Your task to perform on an android device: change the clock display to analog Image 0: 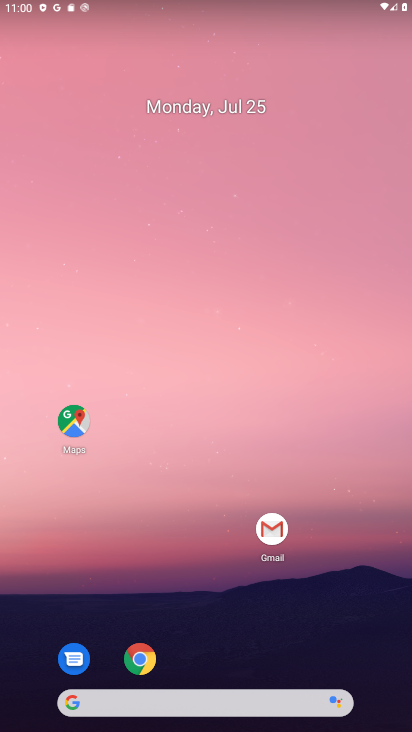
Step 0: drag from (243, 714) to (276, 350)
Your task to perform on an android device: change the clock display to analog Image 1: 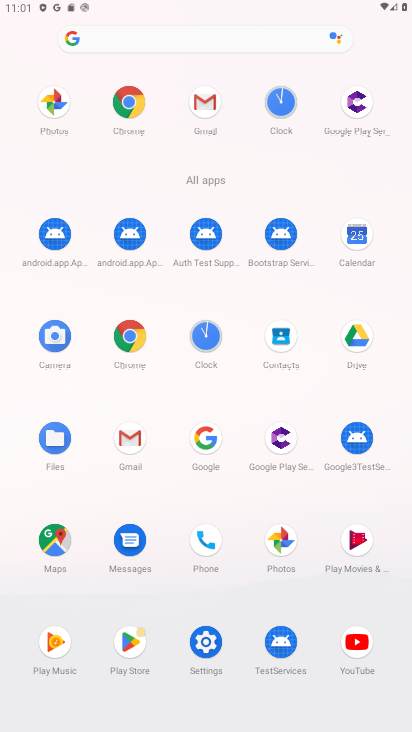
Step 1: click (276, 112)
Your task to perform on an android device: change the clock display to analog Image 2: 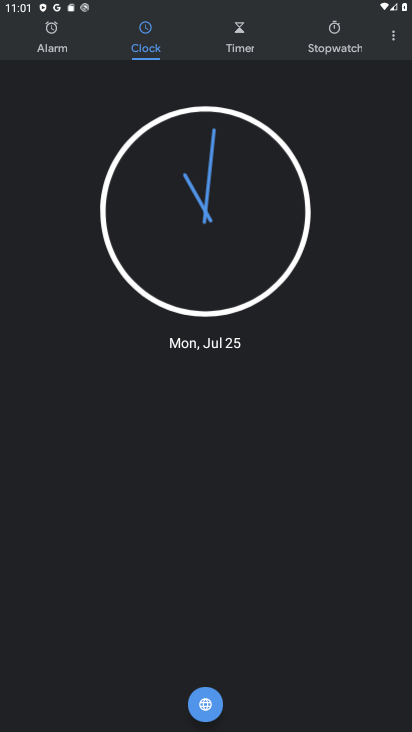
Step 2: click (393, 40)
Your task to perform on an android device: change the clock display to analog Image 3: 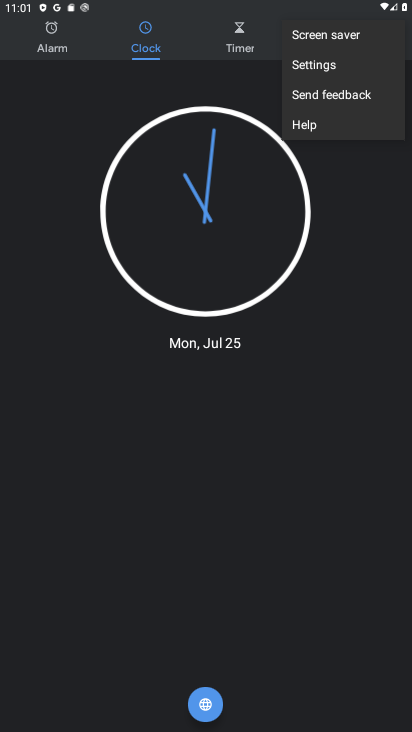
Step 3: click (331, 65)
Your task to perform on an android device: change the clock display to analog Image 4: 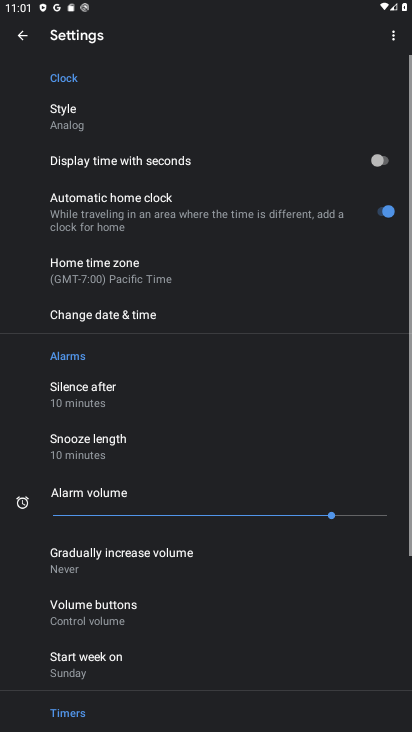
Step 4: click (116, 125)
Your task to perform on an android device: change the clock display to analog Image 5: 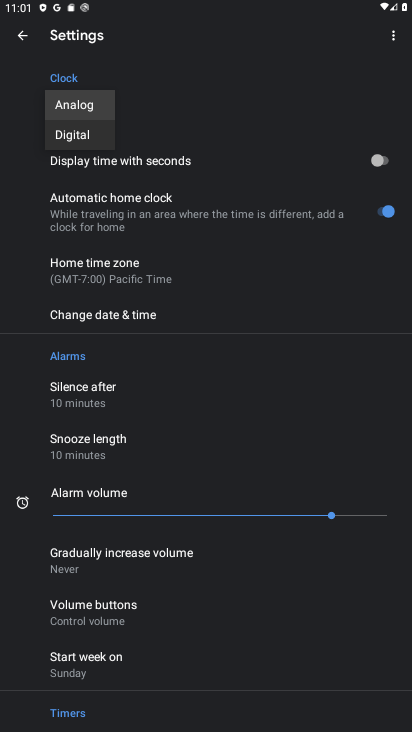
Step 5: click (82, 109)
Your task to perform on an android device: change the clock display to analog Image 6: 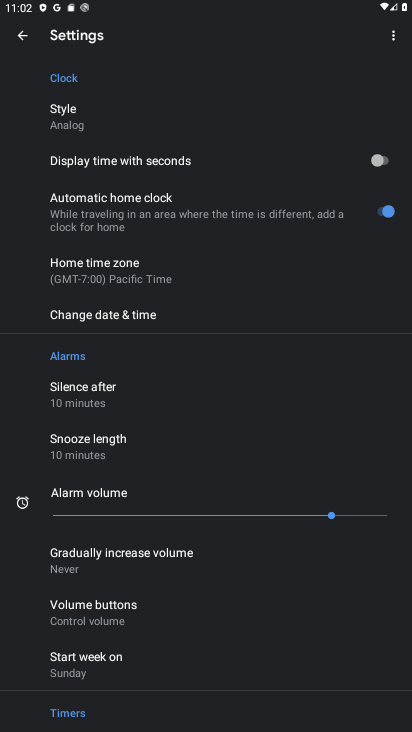
Step 6: task complete